Your task to perform on an android device: Open the web browser Image 0: 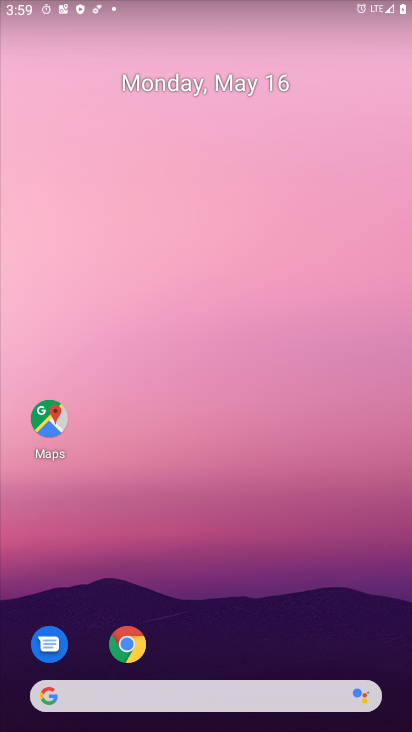
Step 0: drag from (289, 648) to (340, 142)
Your task to perform on an android device: Open the web browser Image 1: 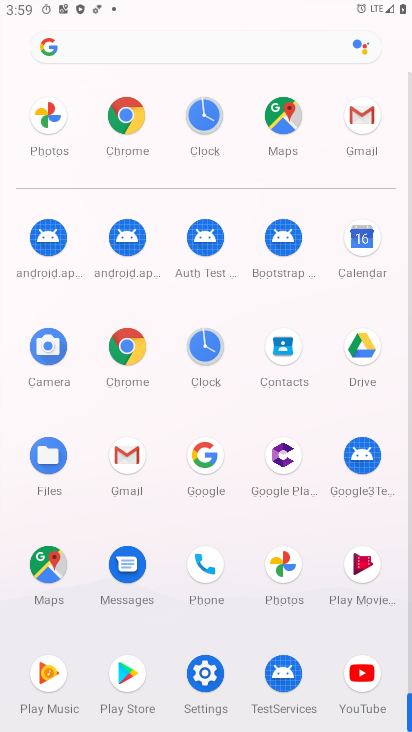
Step 1: click (140, 130)
Your task to perform on an android device: Open the web browser Image 2: 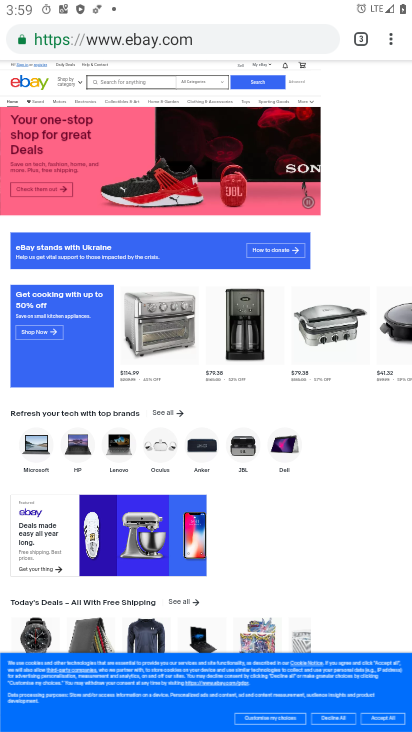
Step 2: task complete